Your task to perform on an android device: toggle notifications settings in the gmail app Image 0: 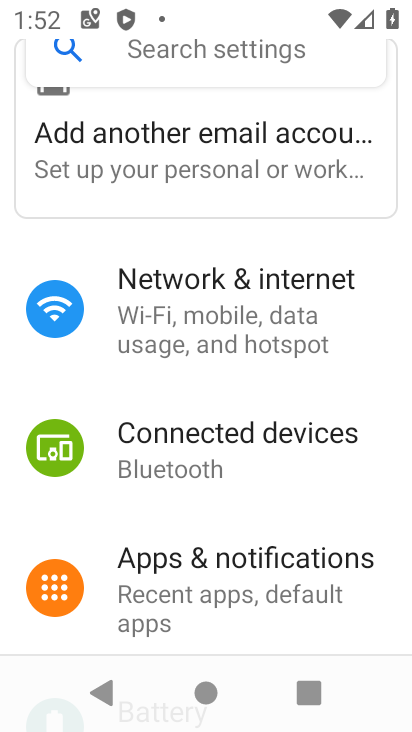
Step 0: press home button
Your task to perform on an android device: toggle notifications settings in the gmail app Image 1: 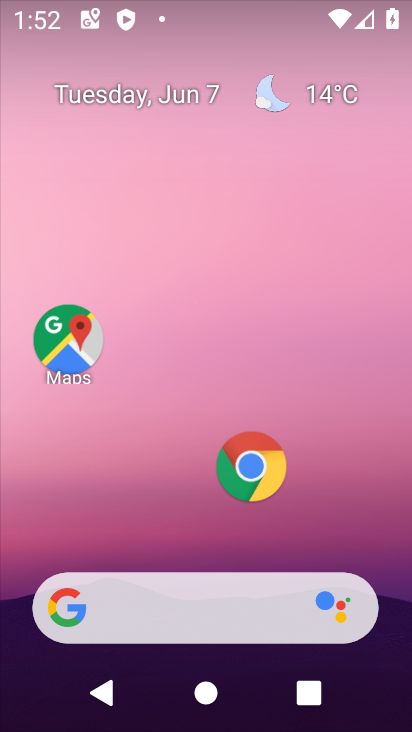
Step 1: drag from (164, 728) to (204, 180)
Your task to perform on an android device: toggle notifications settings in the gmail app Image 2: 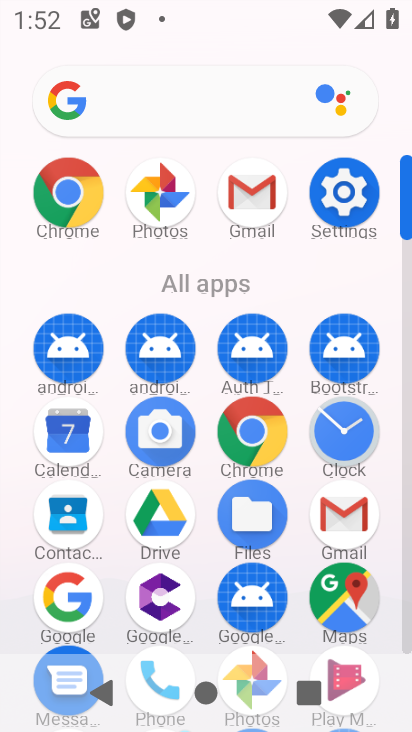
Step 2: click (268, 205)
Your task to perform on an android device: toggle notifications settings in the gmail app Image 3: 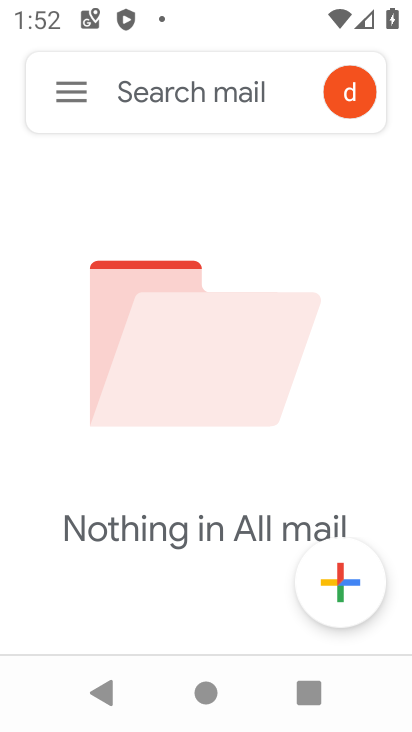
Step 3: click (79, 89)
Your task to perform on an android device: toggle notifications settings in the gmail app Image 4: 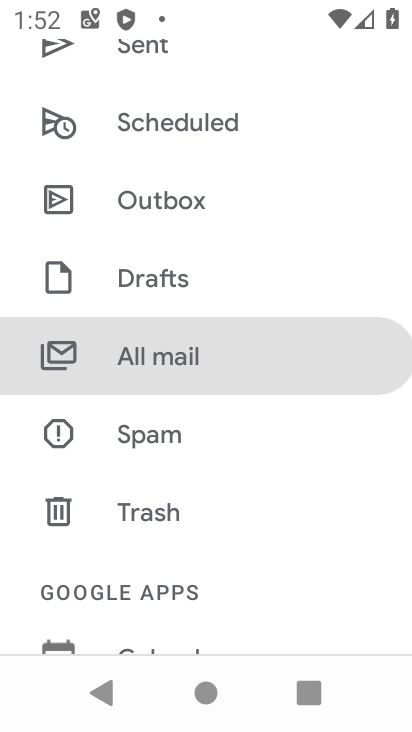
Step 4: drag from (228, 565) to (204, 238)
Your task to perform on an android device: toggle notifications settings in the gmail app Image 5: 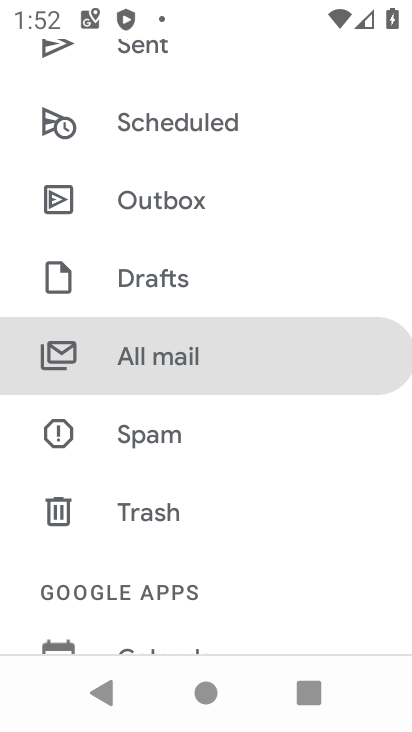
Step 5: drag from (215, 544) to (220, 227)
Your task to perform on an android device: toggle notifications settings in the gmail app Image 6: 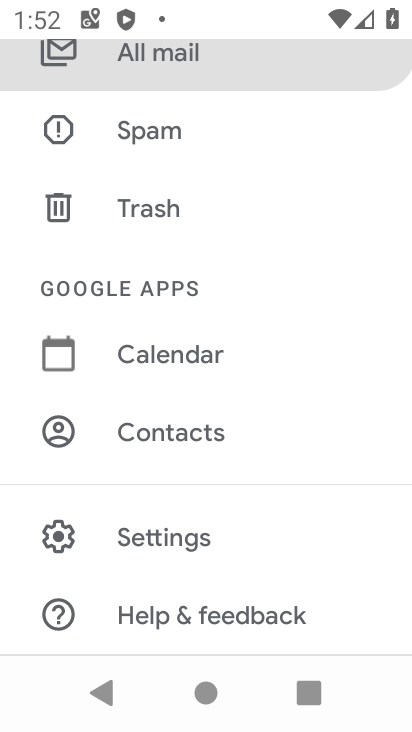
Step 6: click (163, 532)
Your task to perform on an android device: toggle notifications settings in the gmail app Image 7: 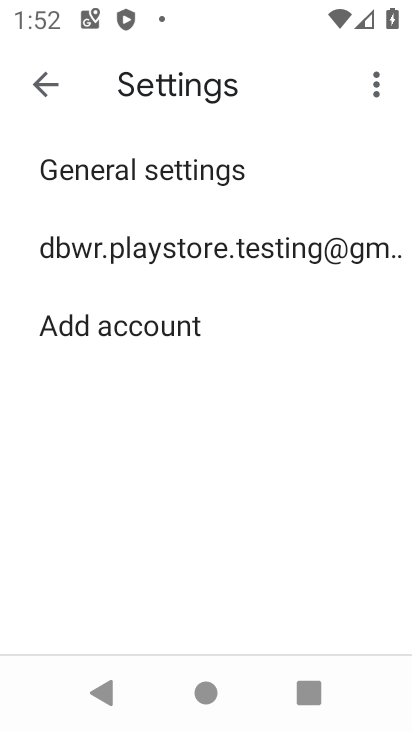
Step 7: click (285, 254)
Your task to perform on an android device: toggle notifications settings in the gmail app Image 8: 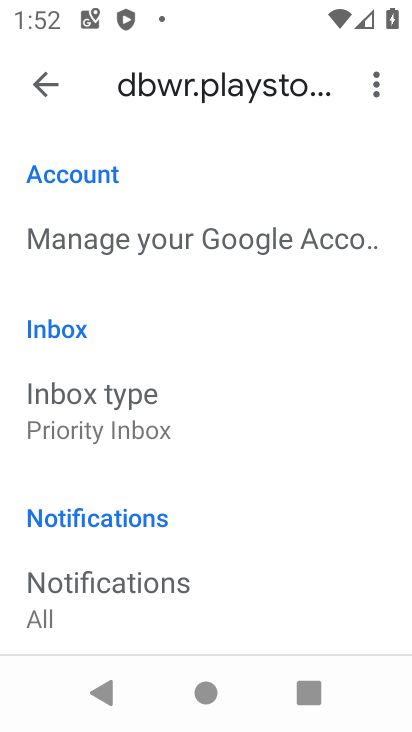
Step 8: drag from (239, 581) to (241, 254)
Your task to perform on an android device: toggle notifications settings in the gmail app Image 9: 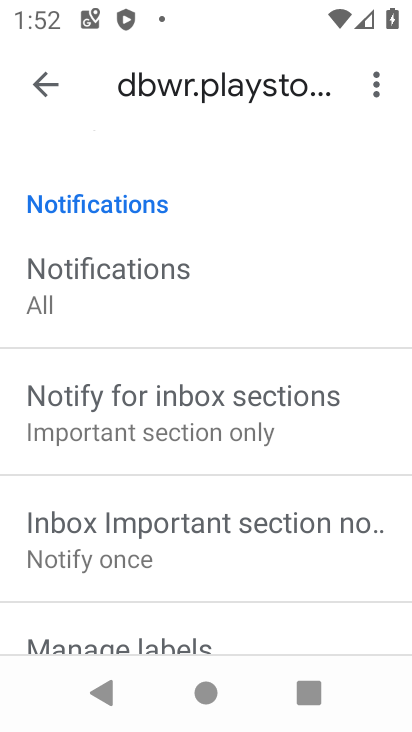
Step 9: drag from (202, 590) to (214, 291)
Your task to perform on an android device: toggle notifications settings in the gmail app Image 10: 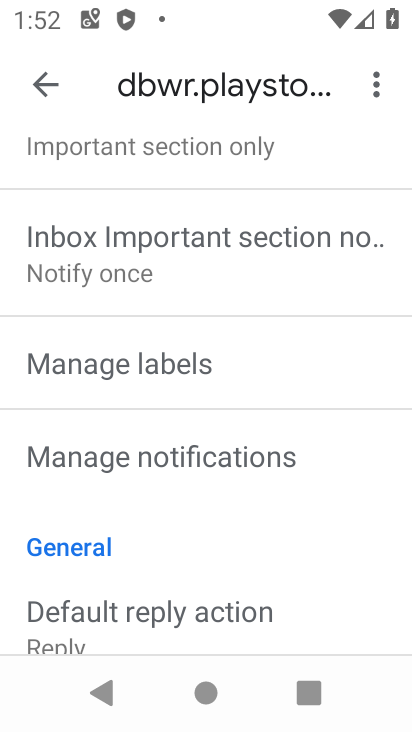
Step 10: click (155, 456)
Your task to perform on an android device: toggle notifications settings in the gmail app Image 11: 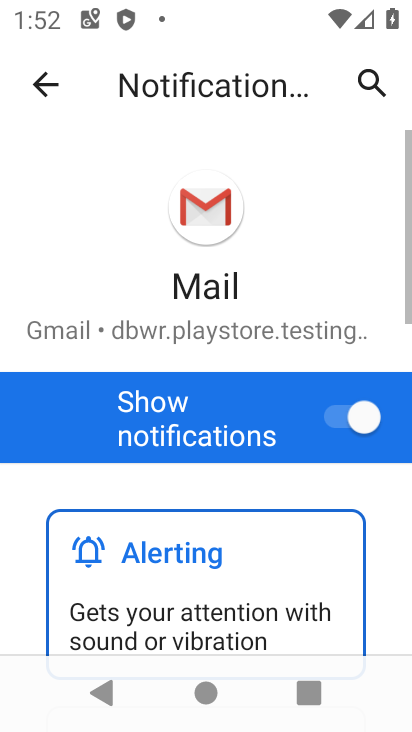
Step 11: click (351, 415)
Your task to perform on an android device: toggle notifications settings in the gmail app Image 12: 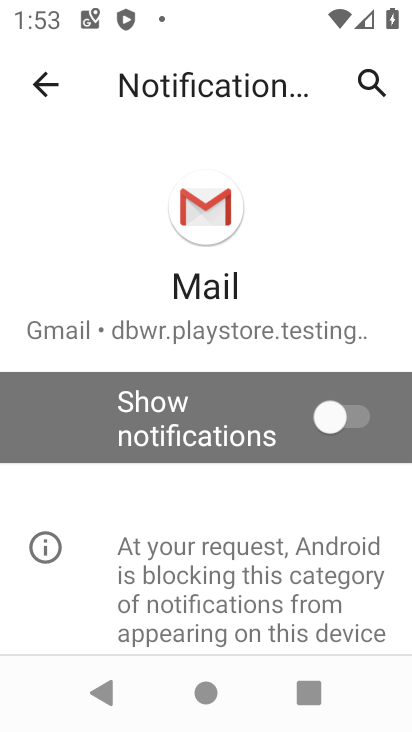
Step 12: task complete